Your task to perform on an android device: Open accessibility settings Image 0: 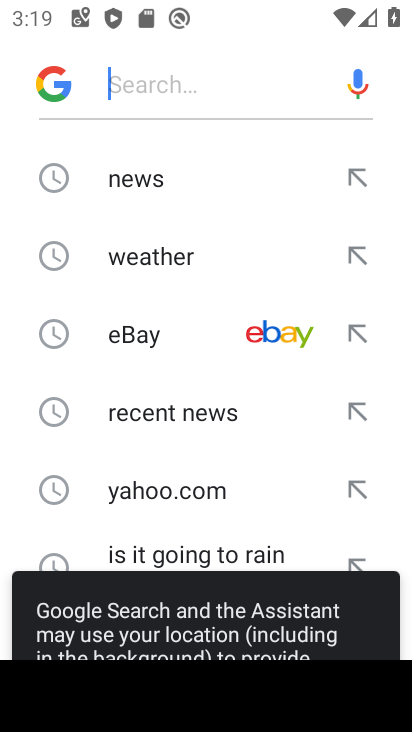
Step 0: press home button
Your task to perform on an android device: Open accessibility settings Image 1: 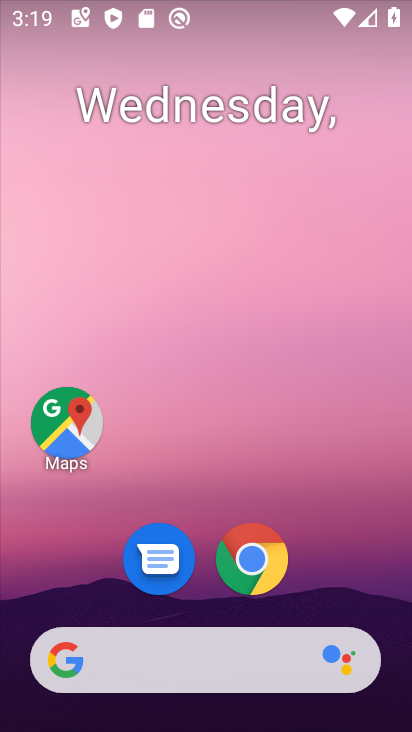
Step 1: drag from (80, 606) to (243, 141)
Your task to perform on an android device: Open accessibility settings Image 2: 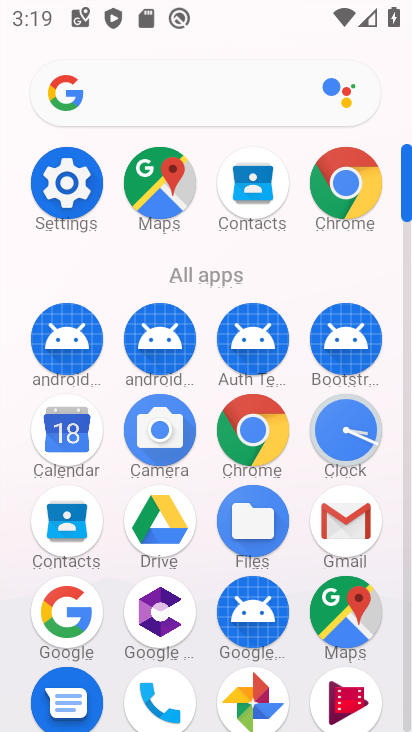
Step 2: drag from (175, 540) to (259, 276)
Your task to perform on an android device: Open accessibility settings Image 3: 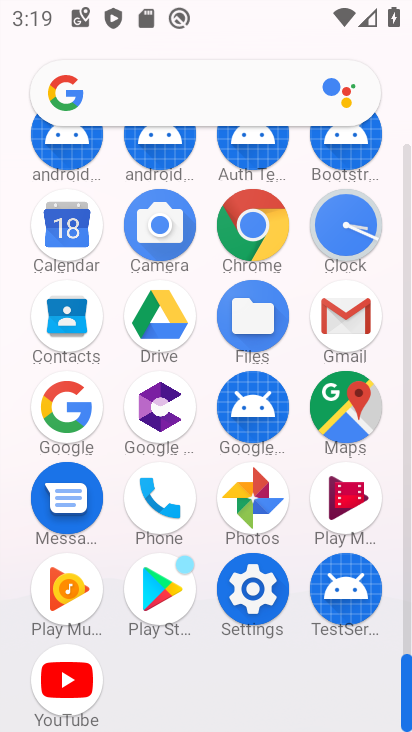
Step 3: click (267, 608)
Your task to perform on an android device: Open accessibility settings Image 4: 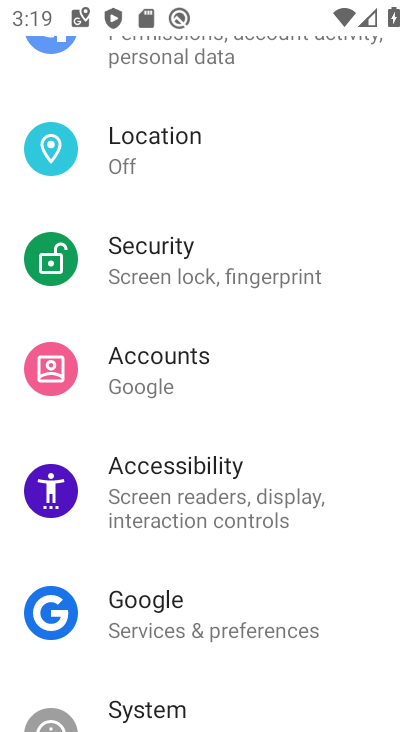
Step 4: drag from (159, 545) to (193, 347)
Your task to perform on an android device: Open accessibility settings Image 5: 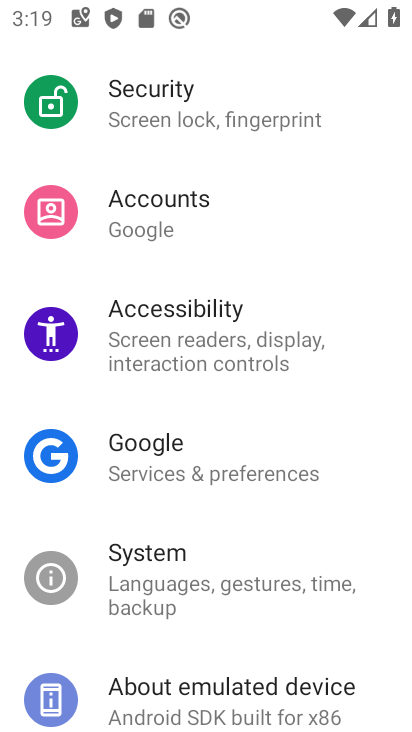
Step 5: click (192, 350)
Your task to perform on an android device: Open accessibility settings Image 6: 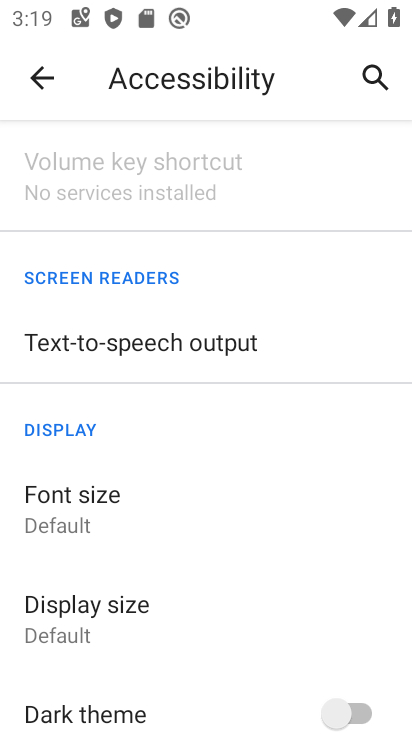
Step 6: task complete